Your task to perform on an android device: Open Chrome and go to settings Image 0: 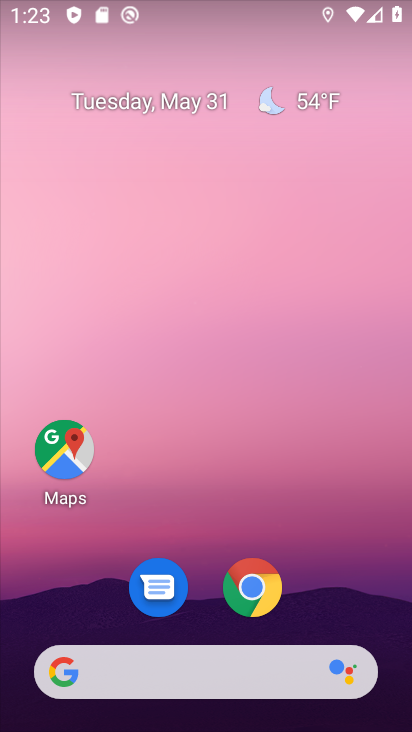
Step 0: drag from (265, 24) to (38, 51)
Your task to perform on an android device: Open Chrome and go to settings Image 1: 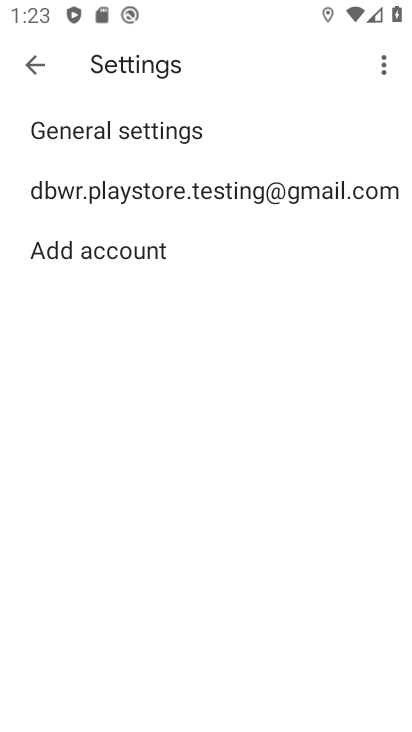
Step 1: drag from (230, 470) to (283, 256)
Your task to perform on an android device: Open Chrome and go to settings Image 2: 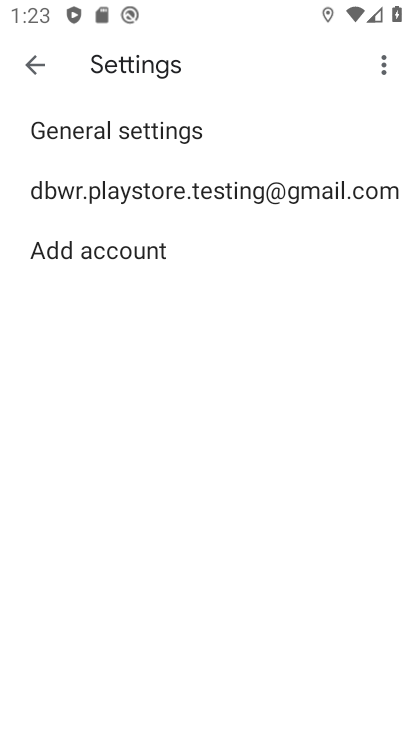
Step 2: press home button
Your task to perform on an android device: Open Chrome and go to settings Image 3: 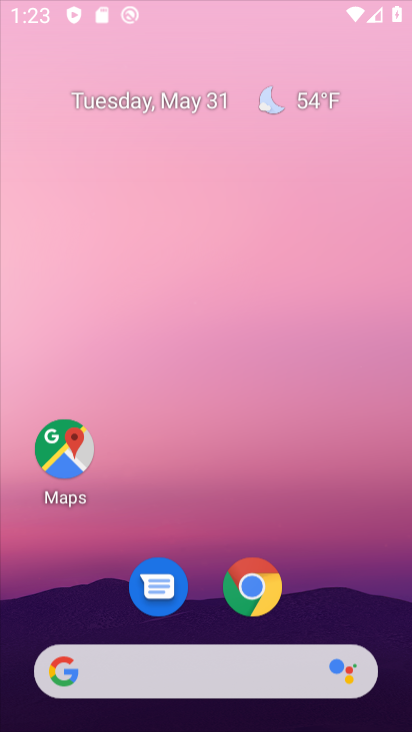
Step 3: drag from (209, 513) to (322, 7)
Your task to perform on an android device: Open Chrome and go to settings Image 4: 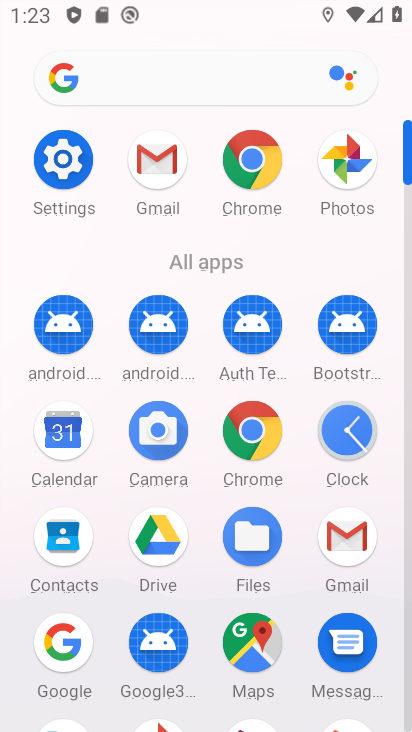
Step 4: click (248, 148)
Your task to perform on an android device: Open Chrome and go to settings Image 5: 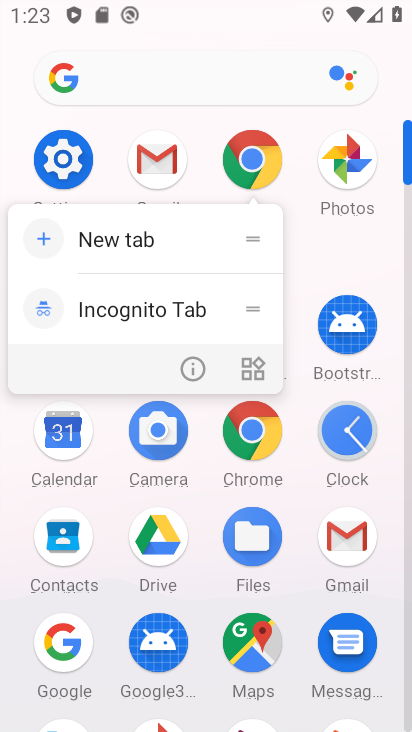
Step 5: click (188, 375)
Your task to perform on an android device: Open Chrome and go to settings Image 6: 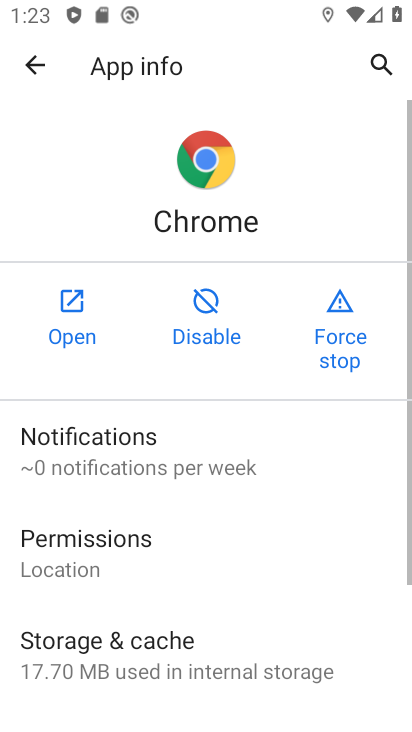
Step 6: click (83, 308)
Your task to perform on an android device: Open Chrome and go to settings Image 7: 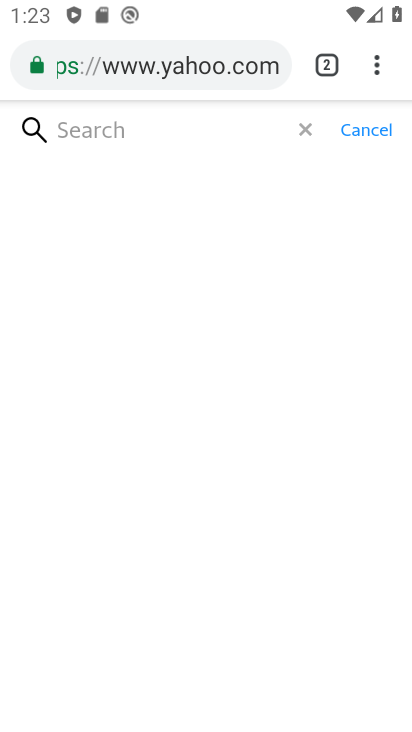
Step 7: task complete